Your task to perform on an android device: Open Amazon Image 0: 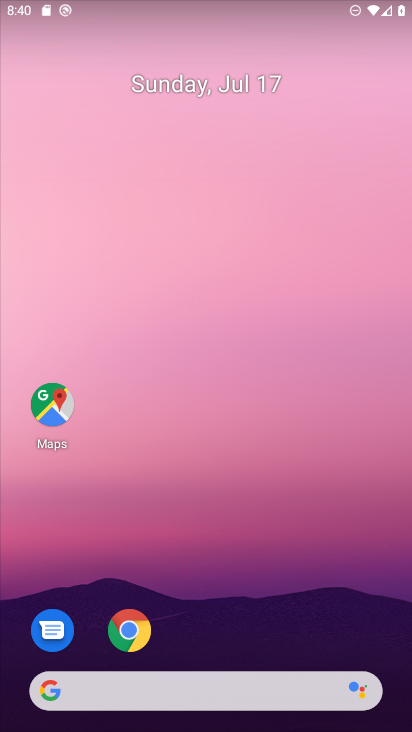
Step 0: drag from (389, 644) to (343, 32)
Your task to perform on an android device: Open Amazon Image 1: 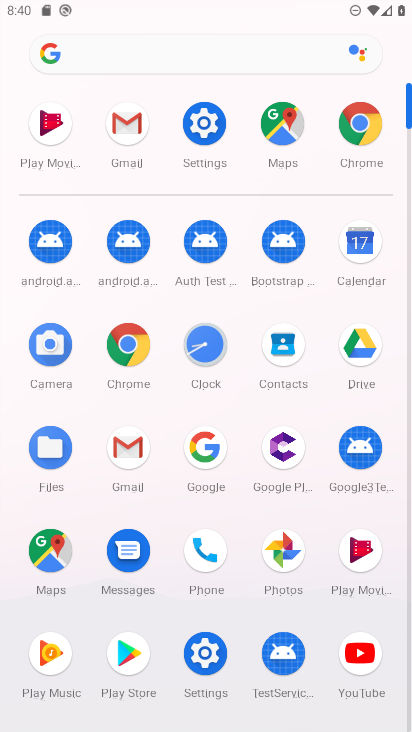
Step 1: click (204, 459)
Your task to perform on an android device: Open Amazon Image 2: 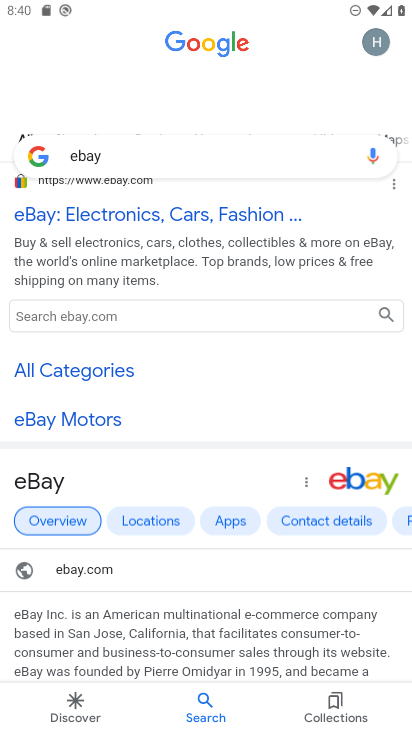
Step 2: press back button
Your task to perform on an android device: Open Amazon Image 3: 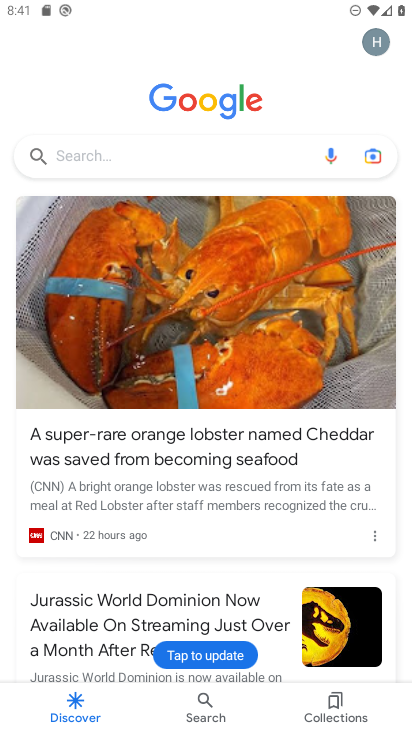
Step 3: click (135, 137)
Your task to perform on an android device: Open Amazon Image 4: 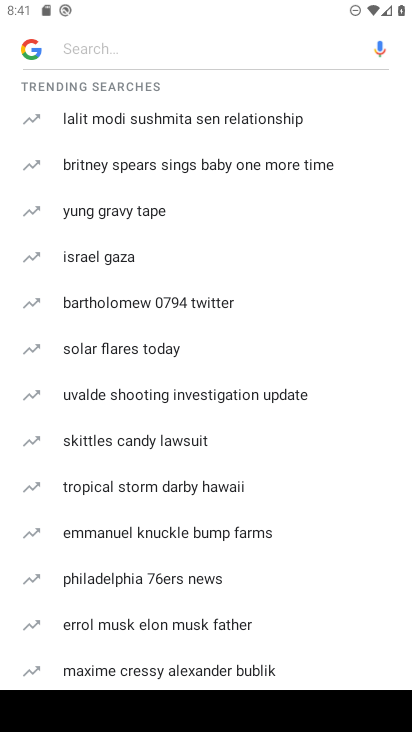
Step 4: type "Amazon"
Your task to perform on an android device: Open Amazon Image 5: 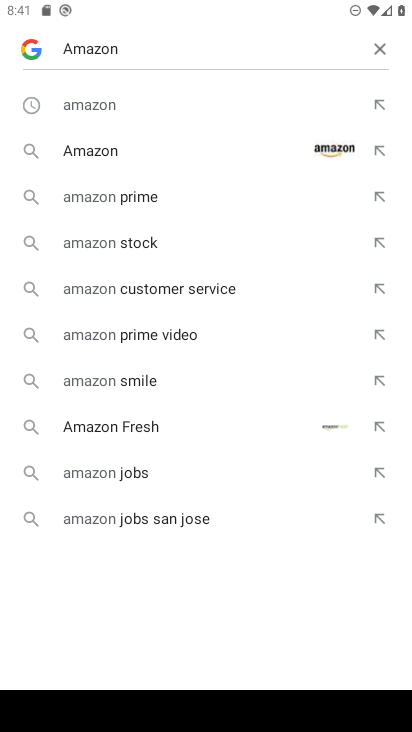
Step 5: click (88, 146)
Your task to perform on an android device: Open Amazon Image 6: 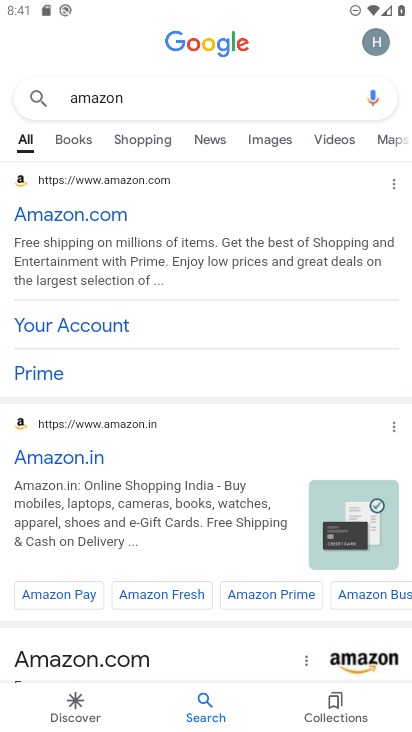
Step 6: task complete